Your task to perform on an android device: toggle location history Image 0: 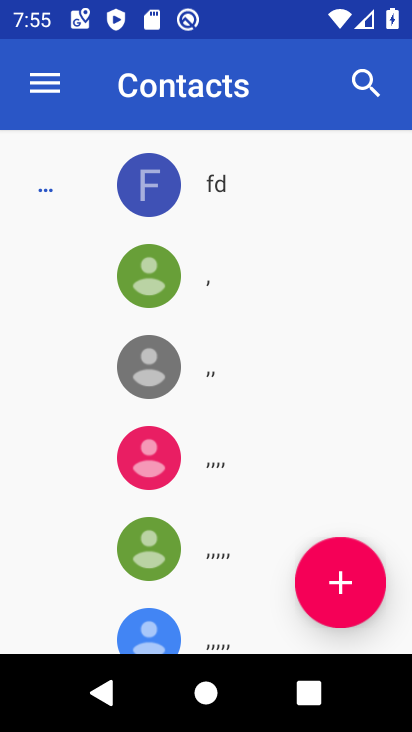
Step 0: press home button
Your task to perform on an android device: toggle location history Image 1: 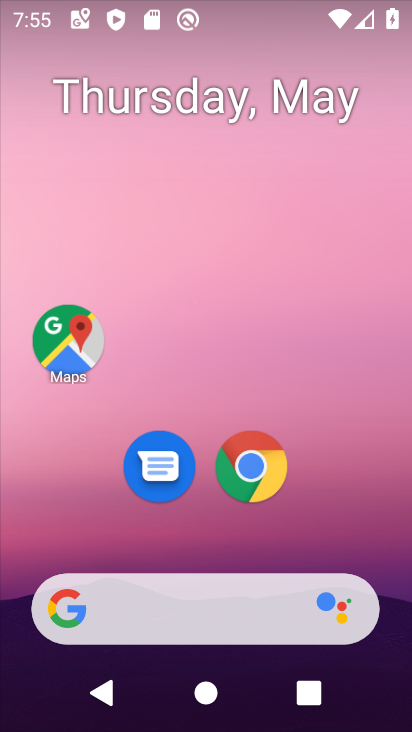
Step 1: click (65, 346)
Your task to perform on an android device: toggle location history Image 2: 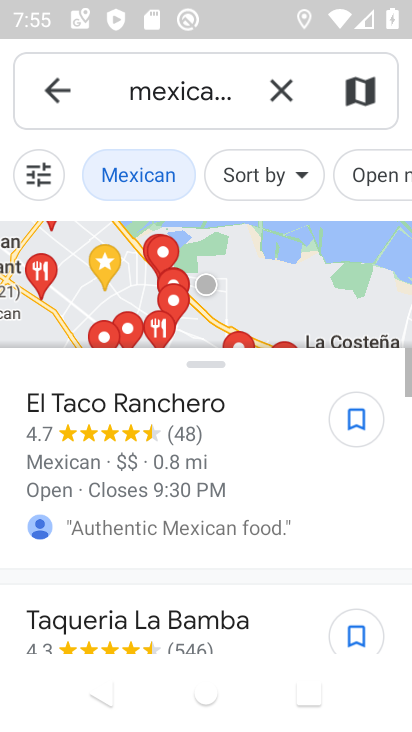
Step 2: click (276, 101)
Your task to perform on an android device: toggle location history Image 3: 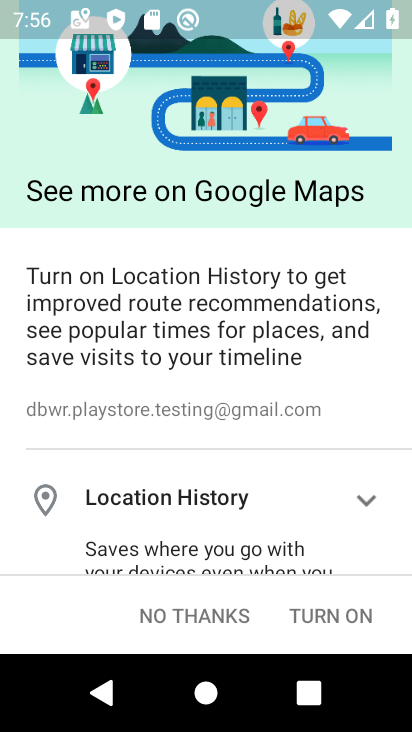
Step 3: click (188, 617)
Your task to perform on an android device: toggle location history Image 4: 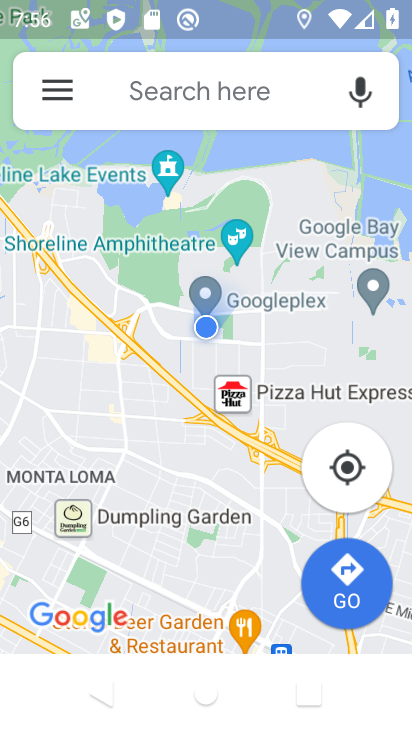
Step 4: click (54, 98)
Your task to perform on an android device: toggle location history Image 5: 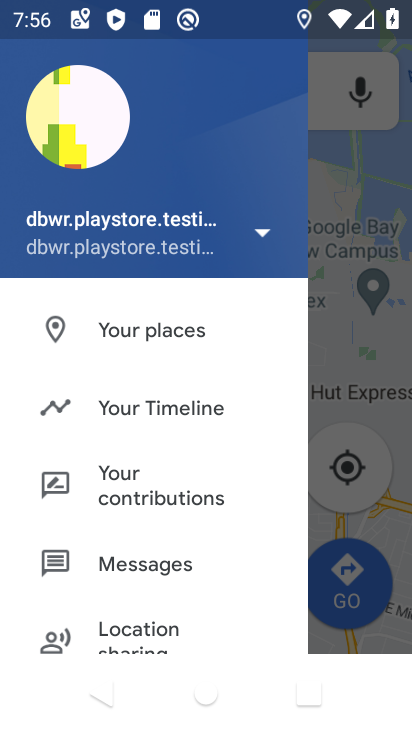
Step 5: click (118, 410)
Your task to perform on an android device: toggle location history Image 6: 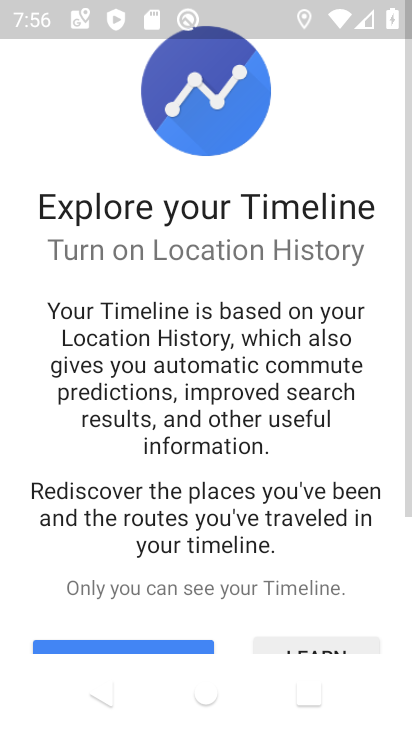
Step 6: drag from (184, 529) to (185, 228)
Your task to perform on an android device: toggle location history Image 7: 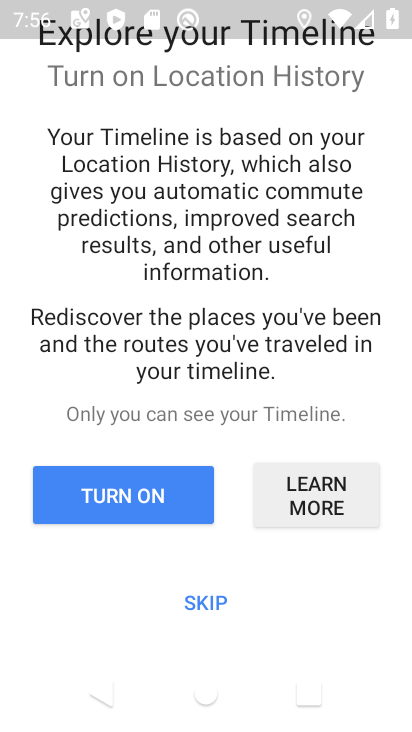
Step 7: click (195, 607)
Your task to perform on an android device: toggle location history Image 8: 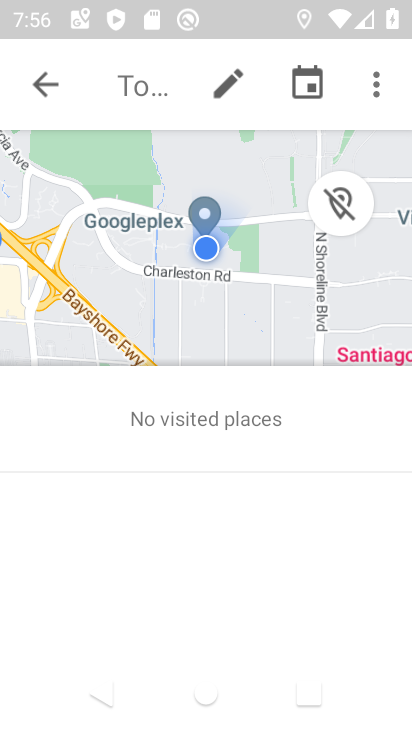
Step 8: click (377, 87)
Your task to perform on an android device: toggle location history Image 9: 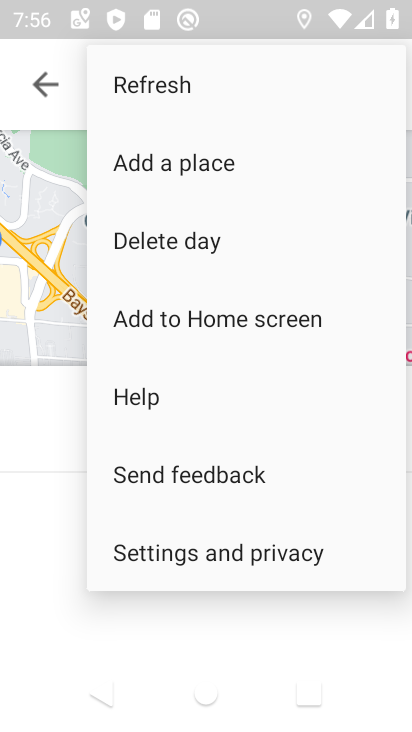
Step 9: click (197, 557)
Your task to perform on an android device: toggle location history Image 10: 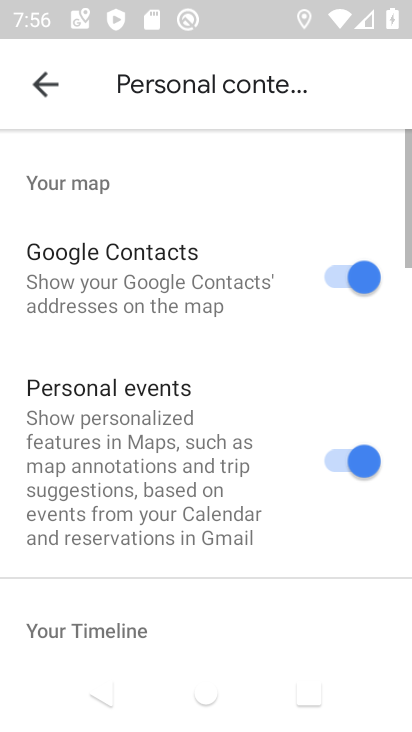
Step 10: drag from (190, 560) to (194, 190)
Your task to perform on an android device: toggle location history Image 11: 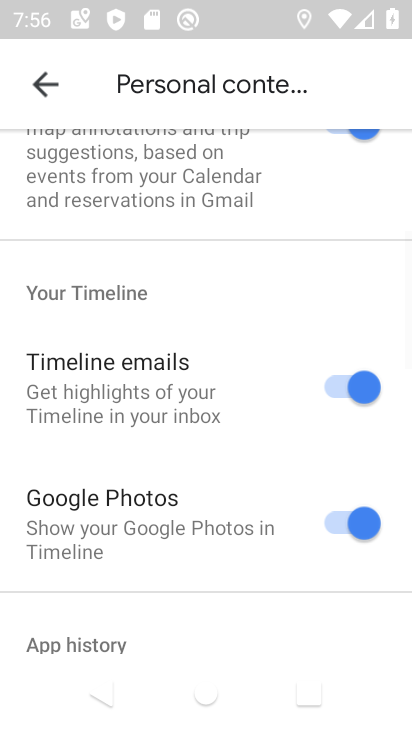
Step 11: drag from (130, 554) to (193, 161)
Your task to perform on an android device: toggle location history Image 12: 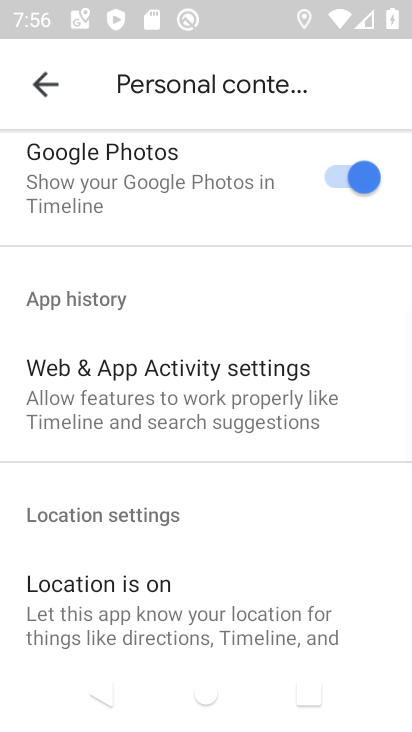
Step 12: drag from (136, 340) to (152, 192)
Your task to perform on an android device: toggle location history Image 13: 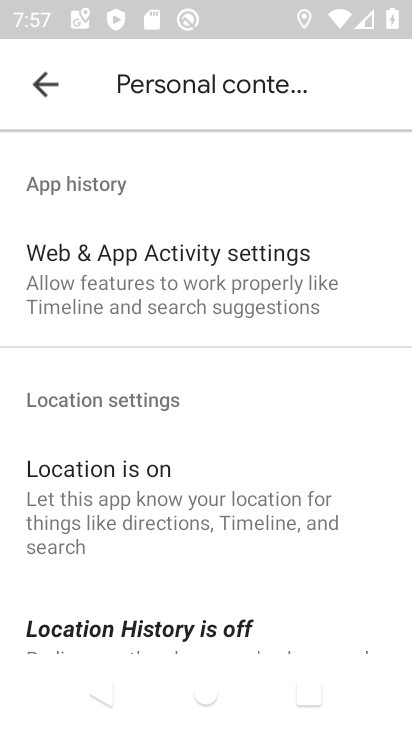
Step 13: click (110, 631)
Your task to perform on an android device: toggle location history Image 14: 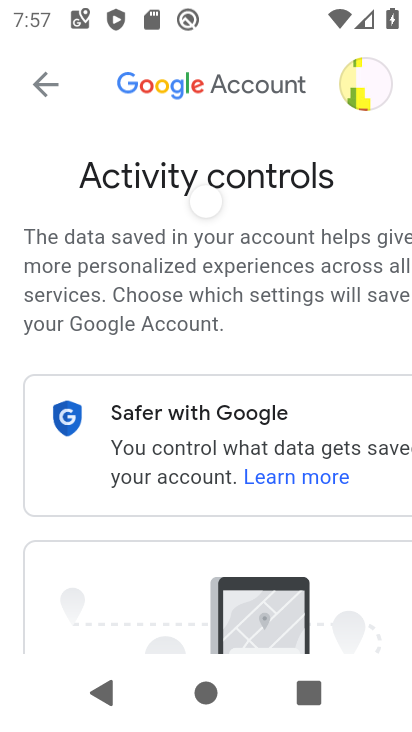
Step 14: drag from (156, 549) to (187, 114)
Your task to perform on an android device: toggle location history Image 15: 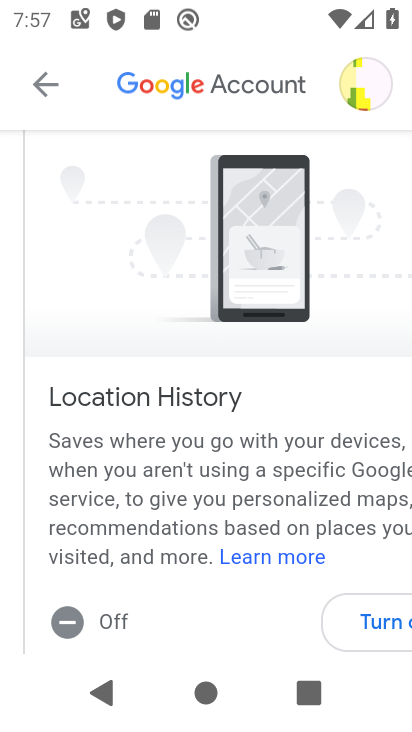
Step 15: drag from (166, 547) to (166, 235)
Your task to perform on an android device: toggle location history Image 16: 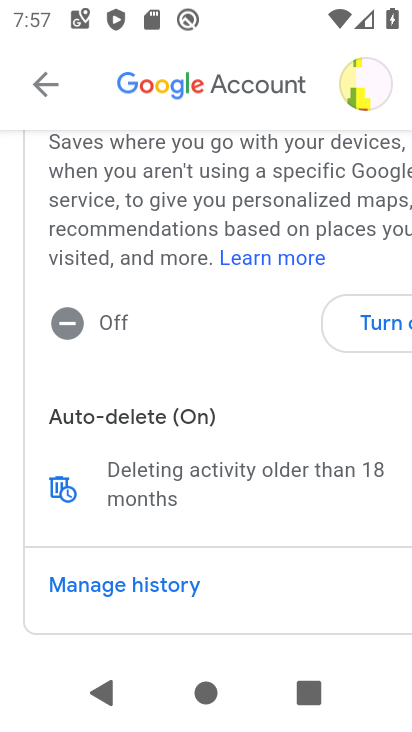
Step 16: click (398, 320)
Your task to perform on an android device: toggle location history Image 17: 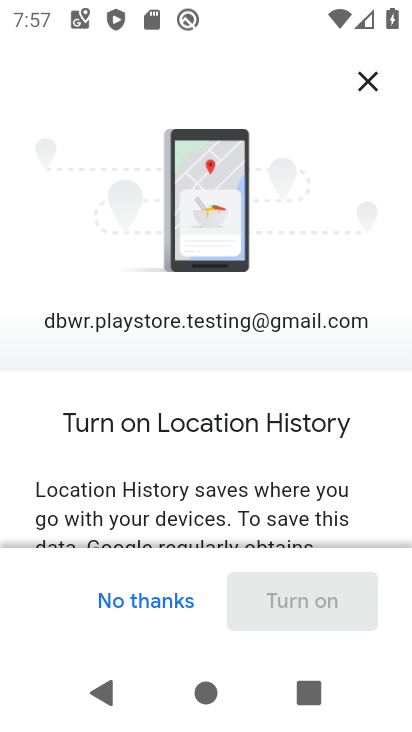
Step 17: drag from (203, 502) to (190, 145)
Your task to perform on an android device: toggle location history Image 18: 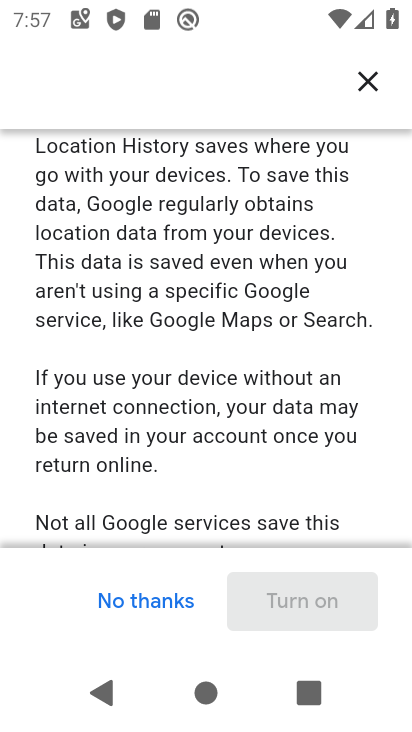
Step 18: drag from (194, 447) to (185, 131)
Your task to perform on an android device: toggle location history Image 19: 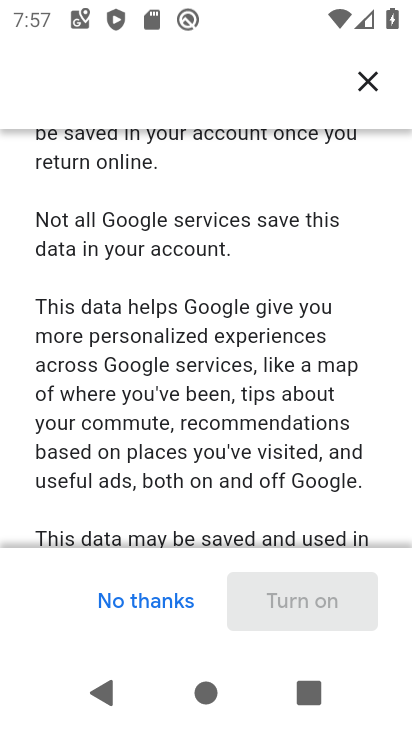
Step 19: drag from (153, 437) to (159, 138)
Your task to perform on an android device: toggle location history Image 20: 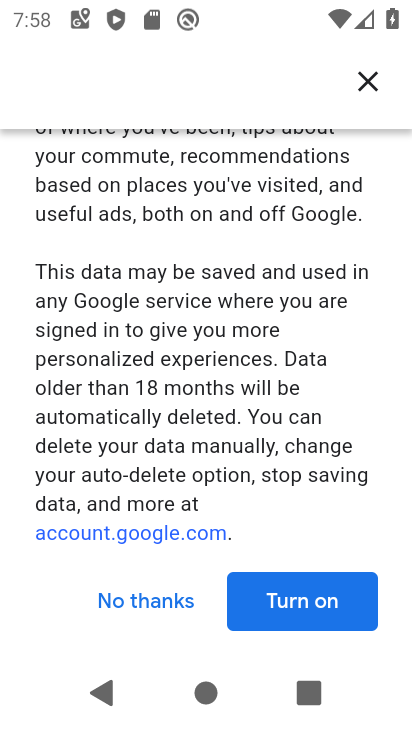
Step 20: drag from (140, 453) to (166, 217)
Your task to perform on an android device: toggle location history Image 21: 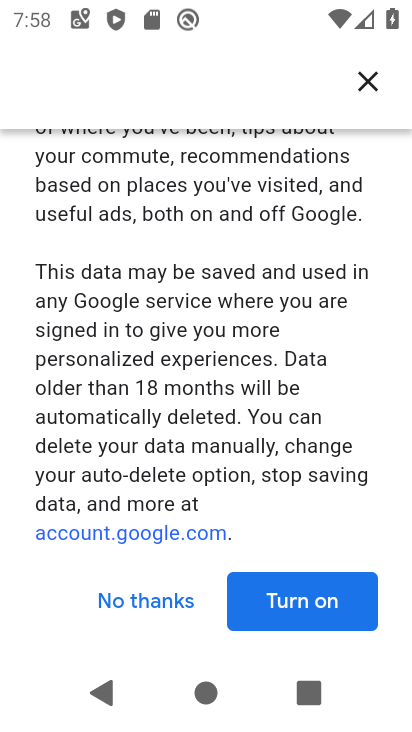
Step 21: click (298, 608)
Your task to perform on an android device: toggle location history Image 22: 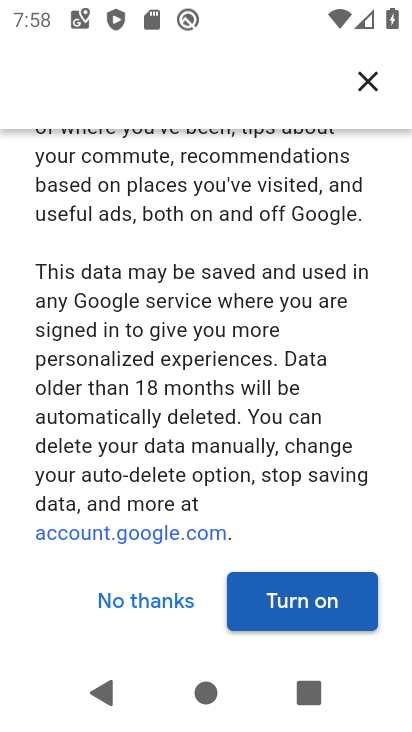
Step 22: click (298, 601)
Your task to perform on an android device: toggle location history Image 23: 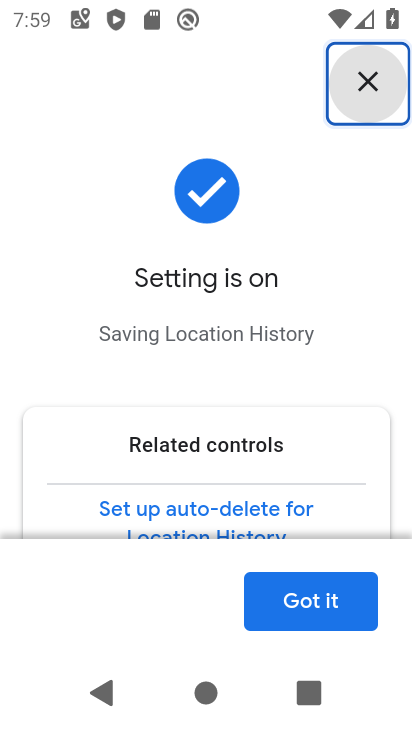
Step 23: click (304, 601)
Your task to perform on an android device: toggle location history Image 24: 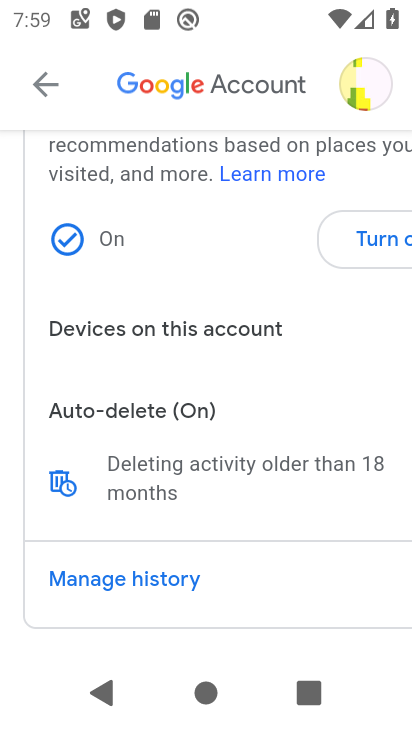
Step 24: task complete